Your task to perform on an android device: Open calendar and show me the second week of next month Image 0: 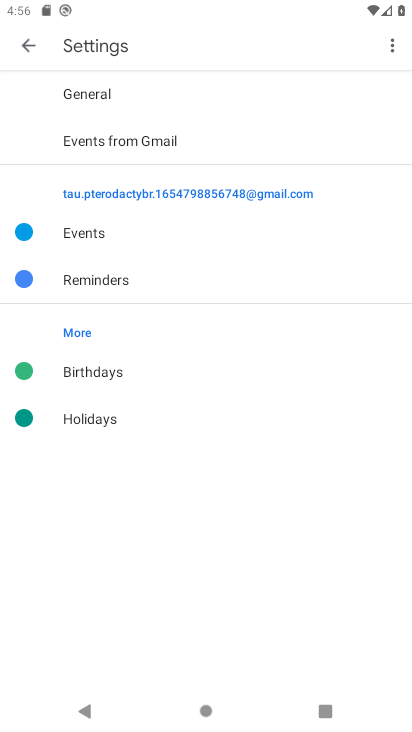
Step 0: click (19, 64)
Your task to perform on an android device: Open calendar and show me the second week of next month Image 1: 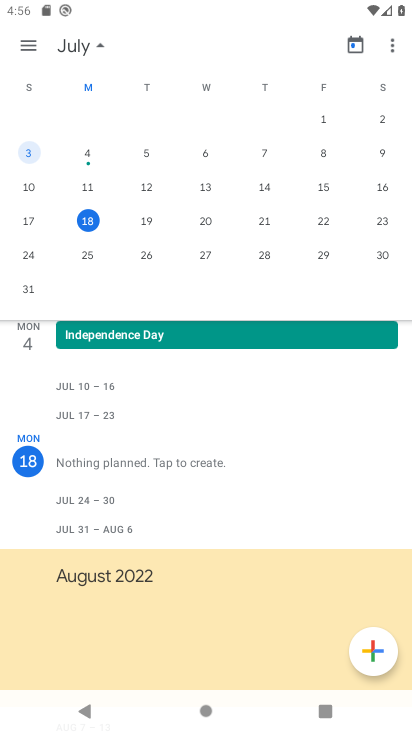
Step 1: drag from (381, 187) to (37, 216)
Your task to perform on an android device: Open calendar and show me the second week of next month Image 2: 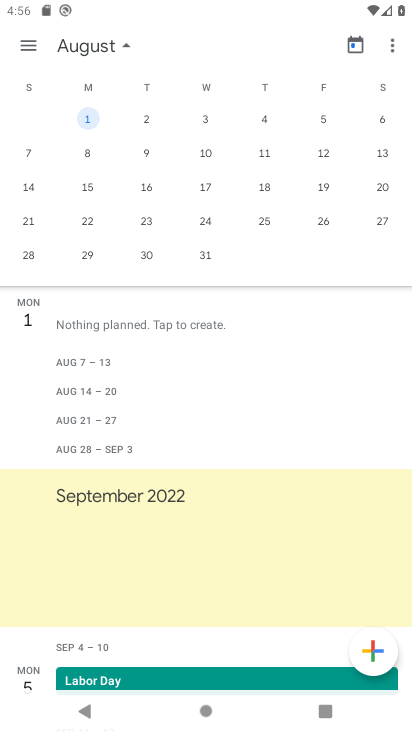
Step 2: click (145, 149)
Your task to perform on an android device: Open calendar and show me the second week of next month Image 3: 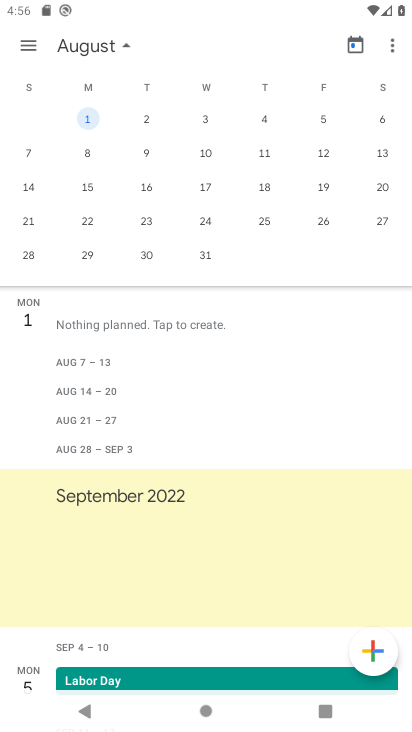
Step 3: click (145, 149)
Your task to perform on an android device: Open calendar and show me the second week of next month Image 4: 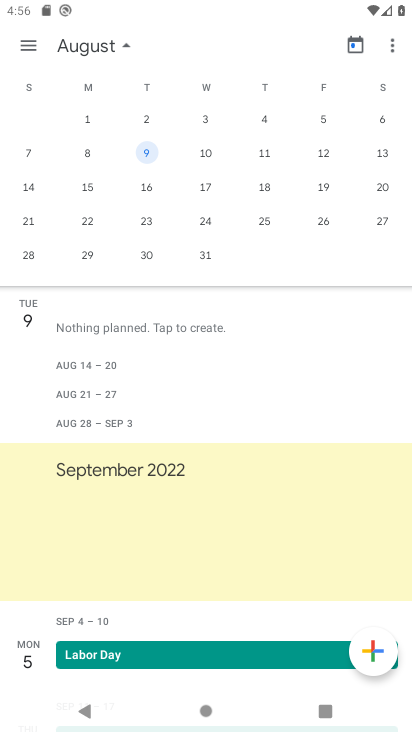
Step 4: click (145, 149)
Your task to perform on an android device: Open calendar and show me the second week of next month Image 5: 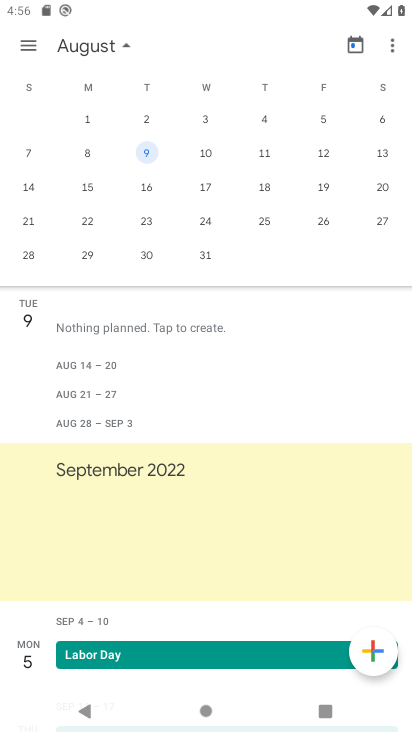
Step 5: click (146, 149)
Your task to perform on an android device: Open calendar and show me the second week of next month Image 6: 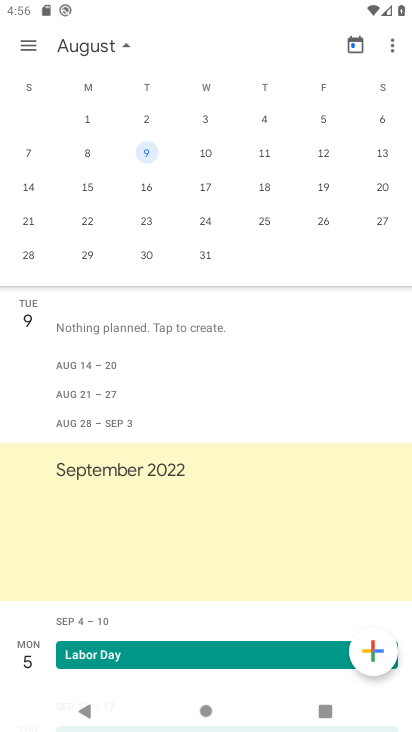
Step 6: task complete